Your task to perform on an android device: toggle notification dots Image 0: 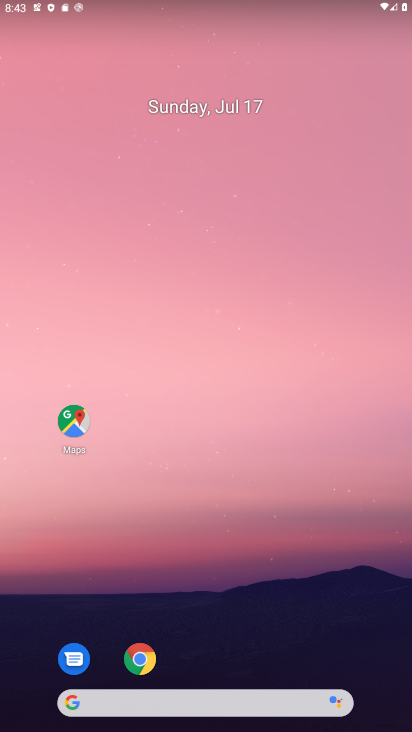
Step 0: drag from (200, 643) to (150, 132)
Your task to perform on an android device: toggle notification dots Image 1: 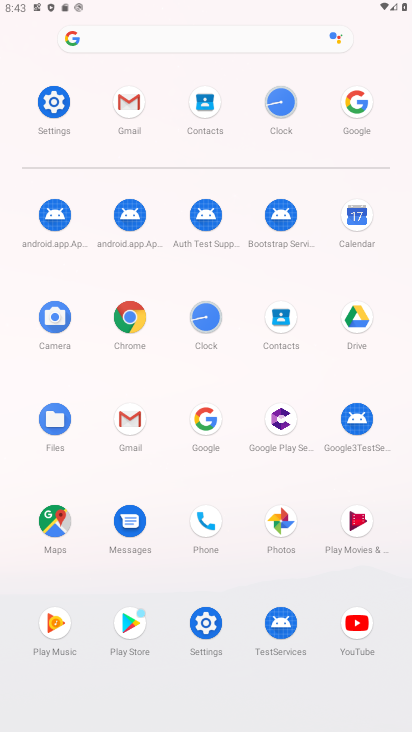
Step 1: click (53, 106)
Your task to perform on an android device: toggle notification dots Image 2: 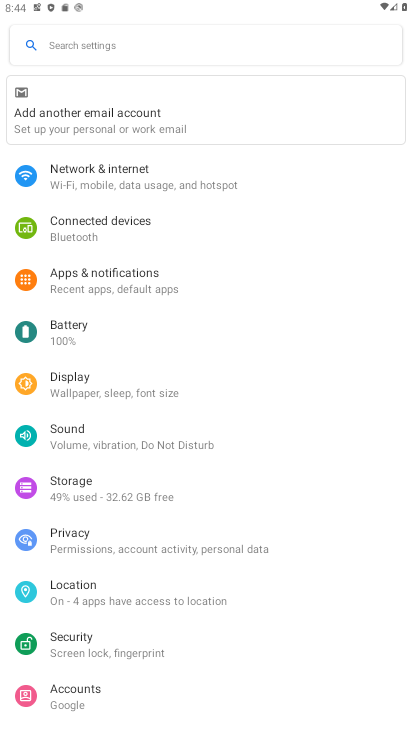
Step 2: click (188, 287)
Your task to perform on an android device: toggle notification dots Image 3: 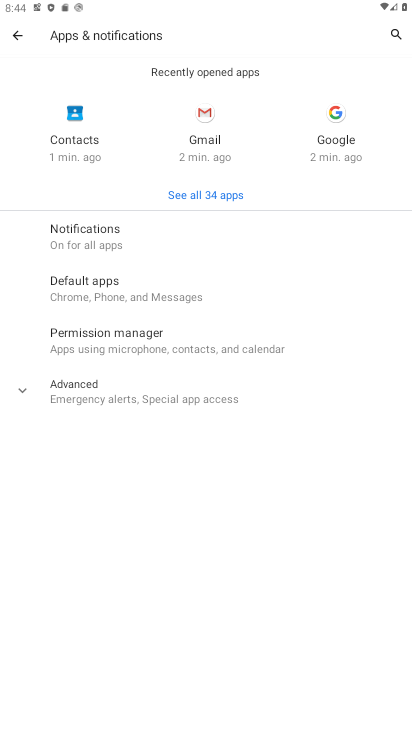
Step 3: click (141, 251)
Your task to perform on an android device: toggle notification dots Image 4: 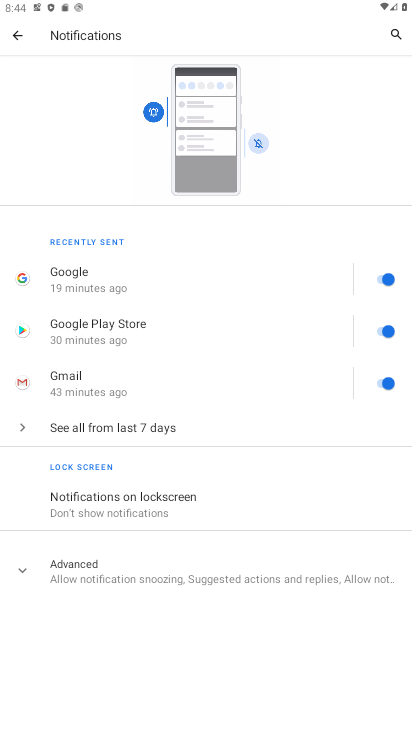
Step 4: click (114, 578)
Your task to perform on an android device: toggle notification dots Image 5: 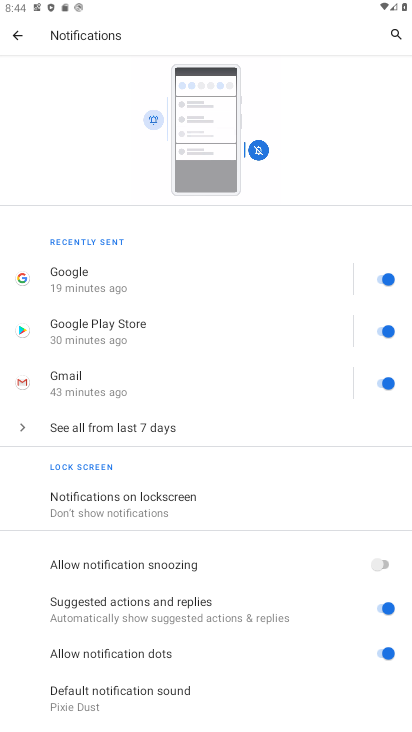
Step 5: click (378, 653)
Your task to perform on an android device: toggle notification dots Image 6: 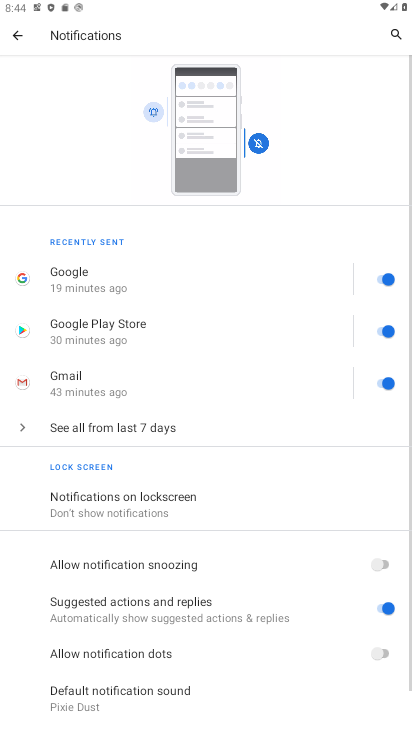
Step 6: task complete